Your task to perform on an android device: Open accessibility settings Image 0: 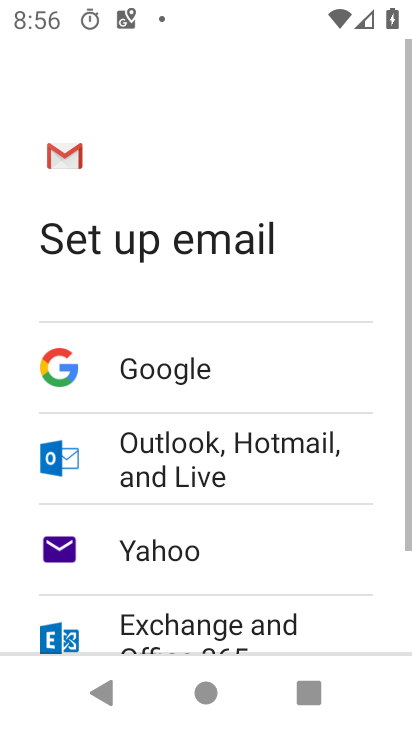
Step 0: press home button
Your task to perform on an android device: Open accessibility settings Image 1: 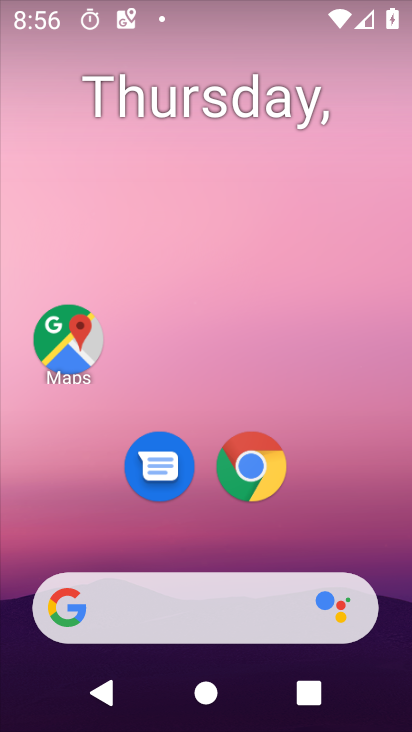
Step 1: drag from (305, 502) to (367, 61)
Your task to perform on an android device: Open accessibility settings Image 2: 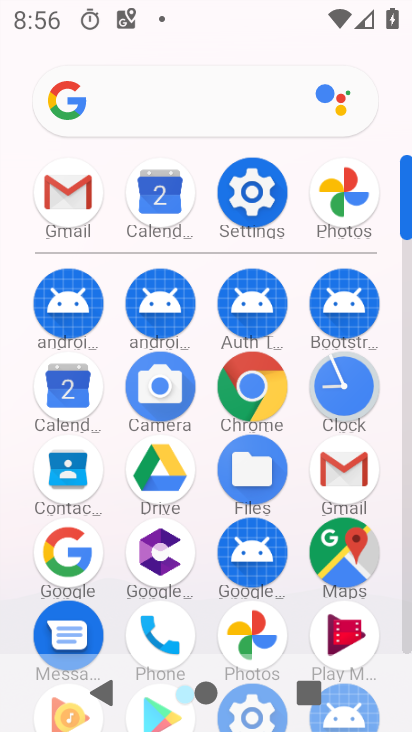
Step 2: click (239, 205)
Your task to perform on an android device: Open accessibility settings Image 3: 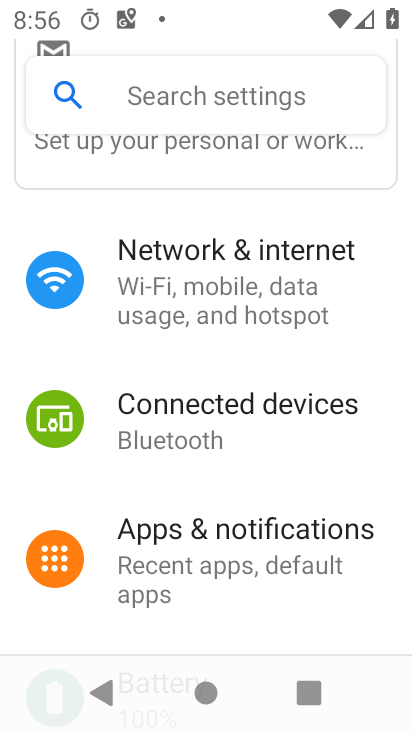
Step 3: drag from (292, 619) to (314, 141)
Your task to perform on an android device: Open accessibility settings Image 4: 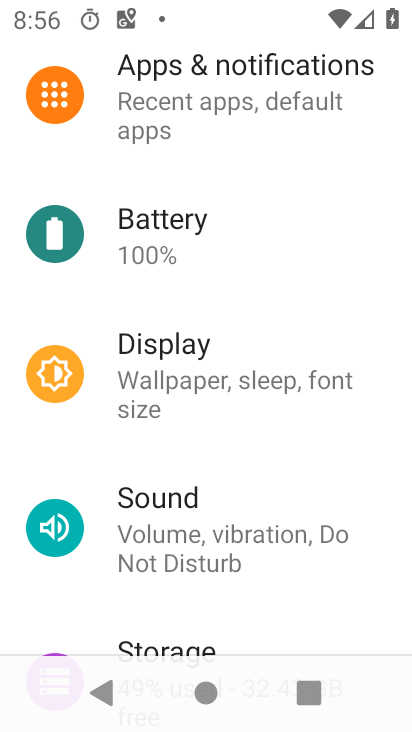
Step 4: drag from (320, 641) to (333, 189)
Your task to perform on an android device: Open accessibility settings Image 5: 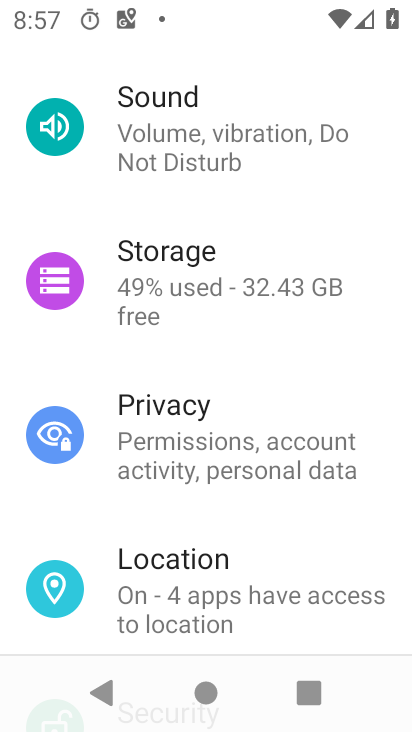
Step 5: drag from (281, 627) to (306, 212)
Your task to perform on an android device: Open accessibility settings Image 6: 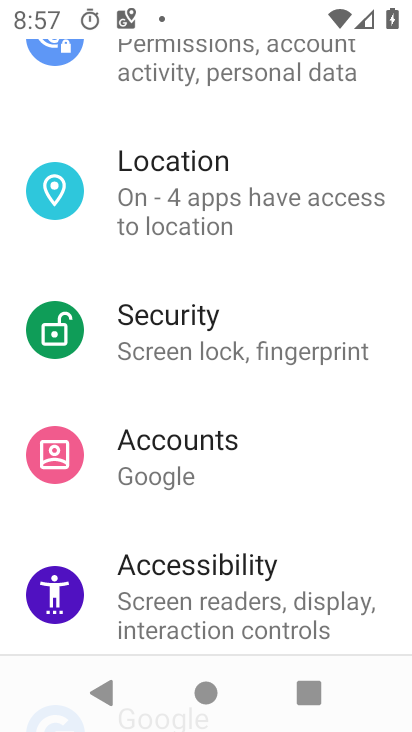
Step 6: click (254, 591)
Your task to perform on an android device: Open accessibility settings Image 7: 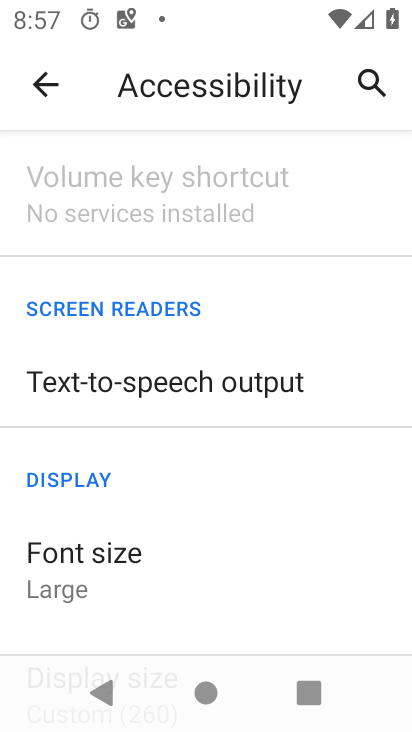
Step 7: task complete